Your task to perform on an android device: Open location settings Image 0: 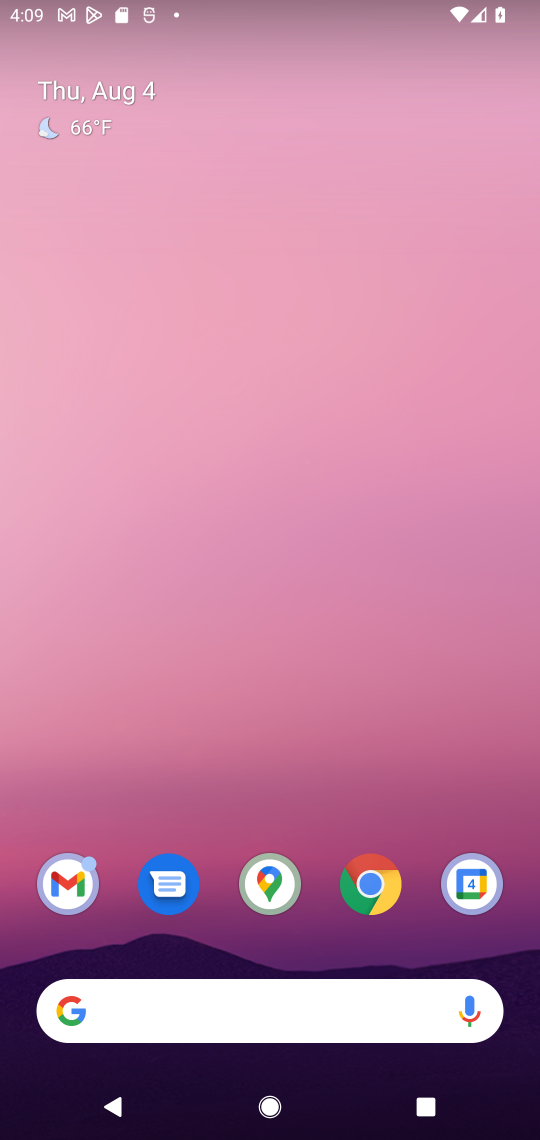
Step 0: drag from (226, 958) to (255, 228)
Your task to perform on an android device: Open location settings Image 1: 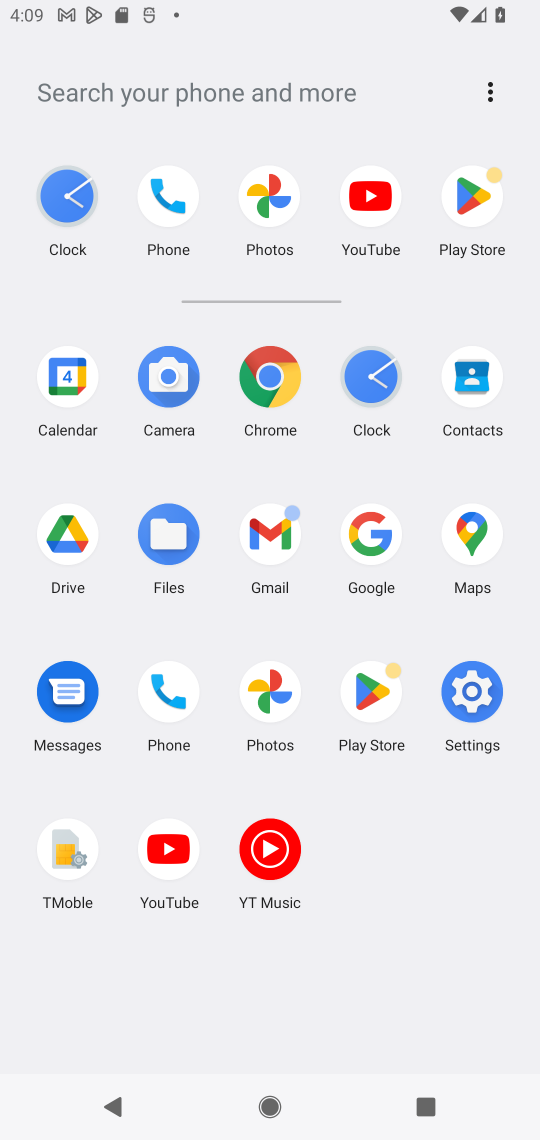
Step 1: click (477, 680)
Your task to perform on an android device: Open location settings Image 2: 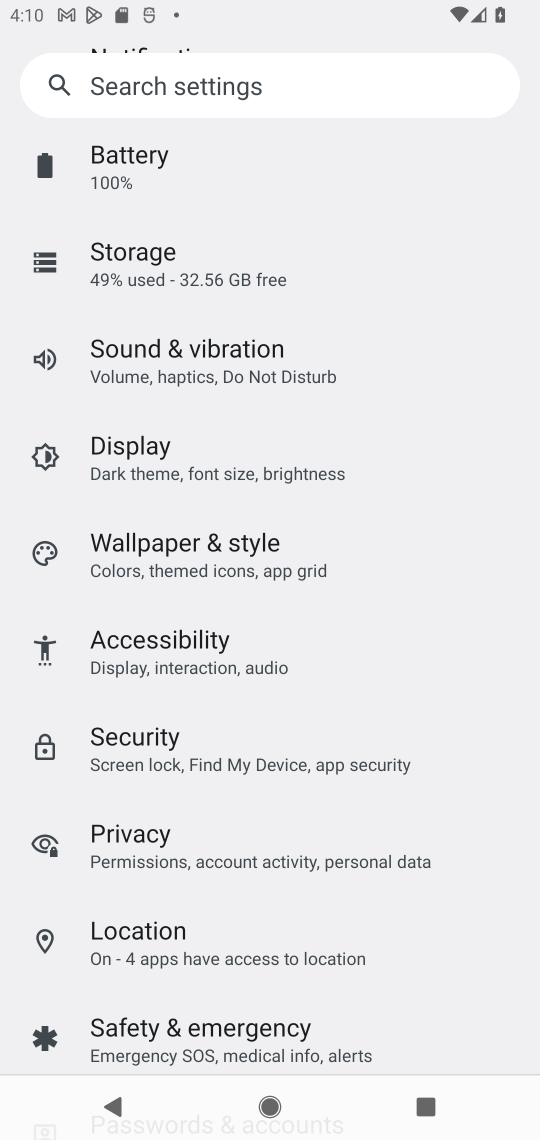
Step 2: click (209, 930)
Your task to perform on an android device: Open location settings Image 3: 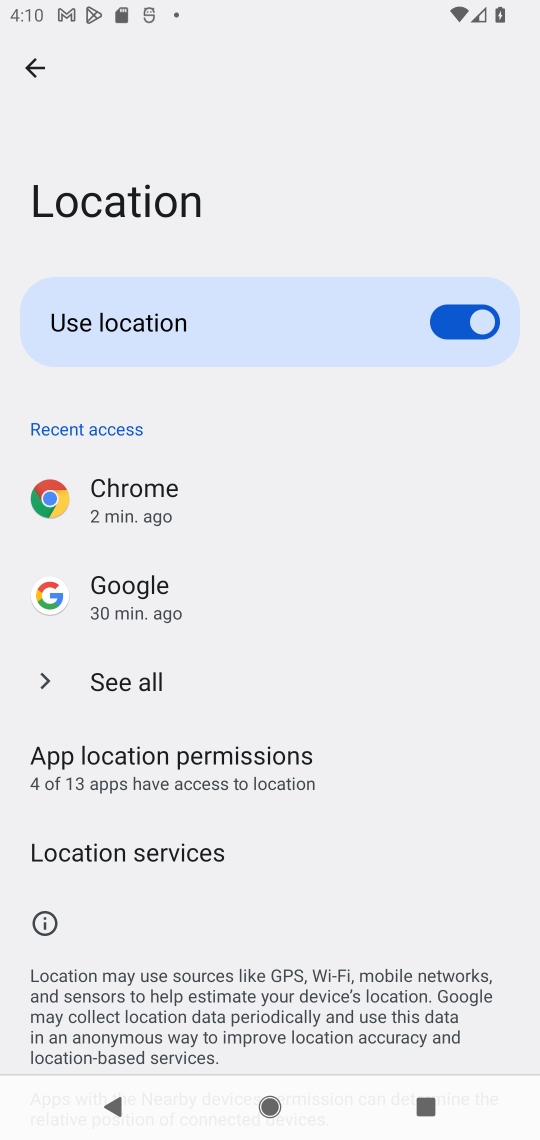
Step 3: task complete